Your task to perform on an android device: Clear the shopping cart on amazon.com. Search for "duracell triple a" on amazon.com, select the first entry, and add it to the cart. Image 0: 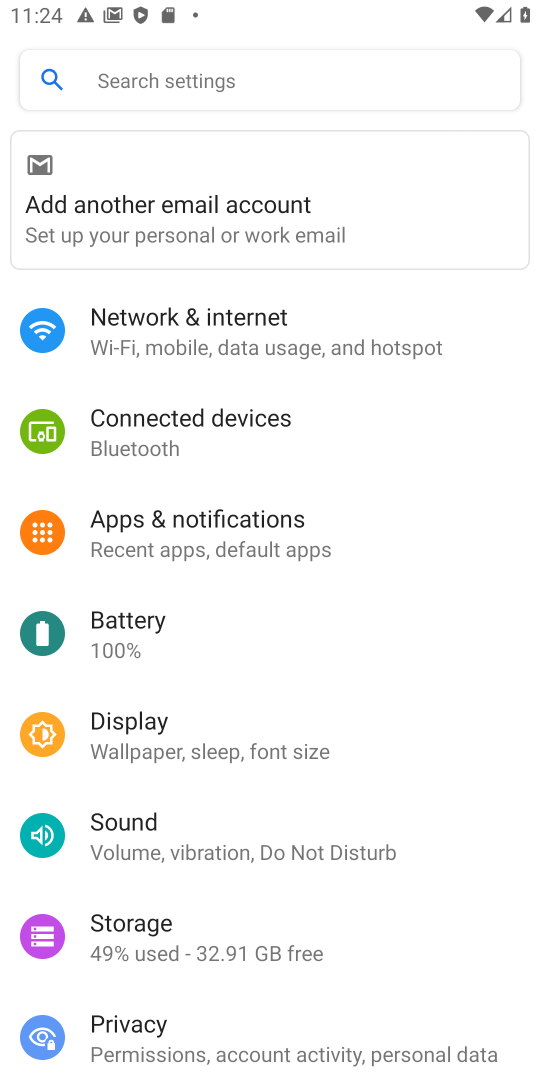
Step 0: press home button
Your task to perform on an android device: Clear the shopping cart on amazon.com. Search for "duracell triple a" on amazon.com, select the first entry, and add it to the cart. Image 1: 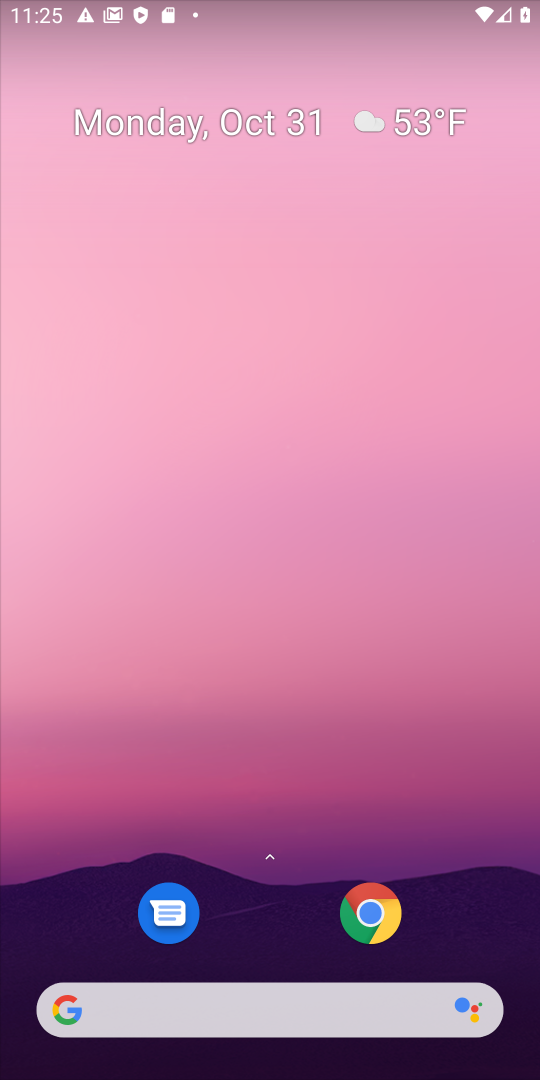
Step 1: task complete